Your task to perform on an android device: open a new tab in the chrome app Image 0: 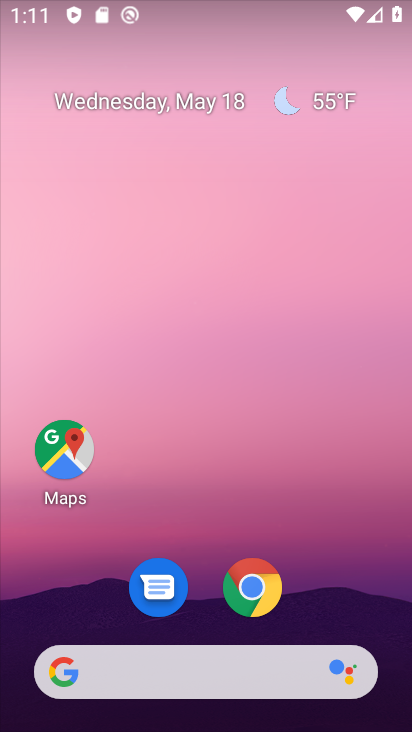
Step 0: click (262, 586)
Your task to perform on an android device: open a new tab in the chrome app Image 1: 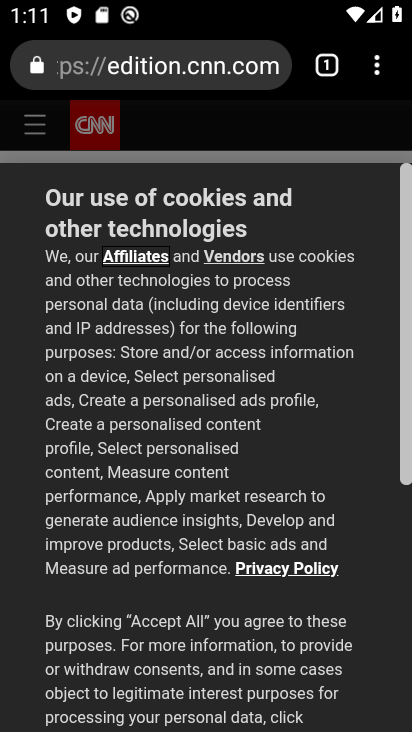
Step 1: task complete